Your task to perform on an android device: Toggle the flashlight Image 0: 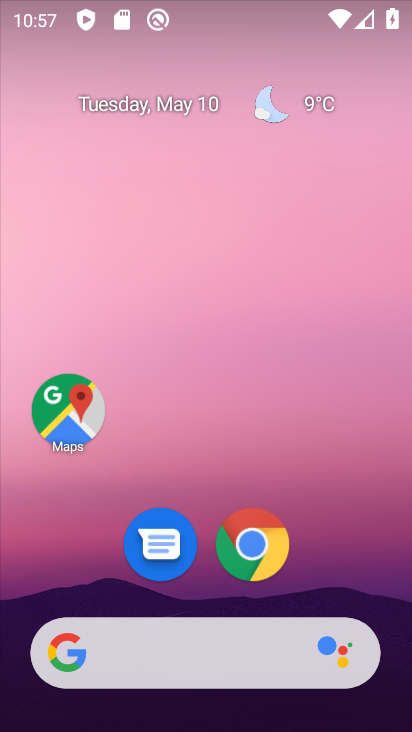
Step 0: drag from (362, 9) to (353, 590)
Your task to perform on an android device: Toggle the flashlight Image 1: 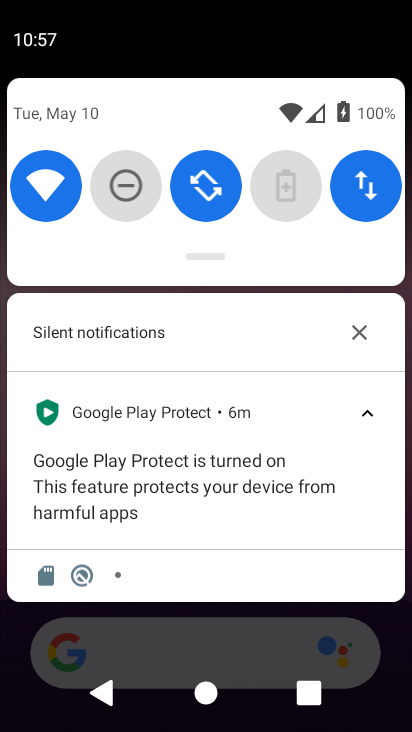
Step 1: task complete